Your task to perform on an android device: Go to network settings Image 0: 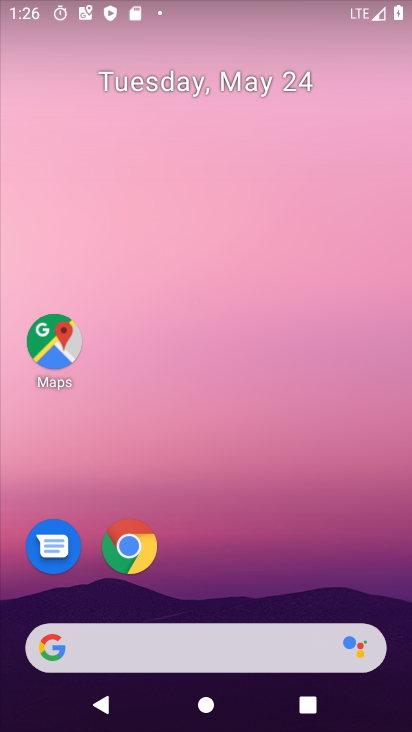
Step 0: drag from (147, 482) to (3, 467)
Your task to perform on an android device: Go to network settings Image 1: 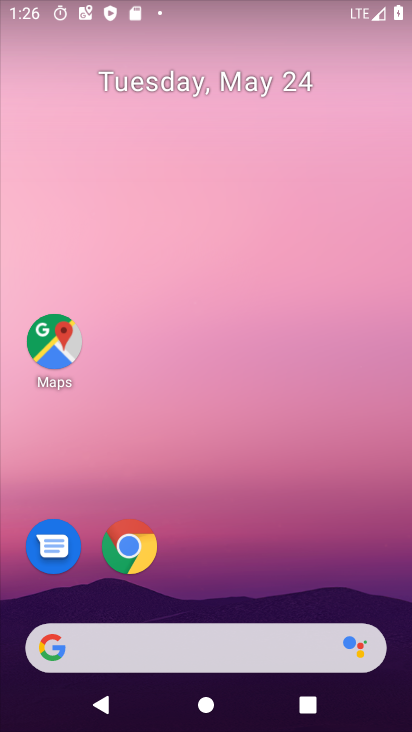
Step 1: drag from (180, 613) to (243, 105)
Your task to perform on an android device: Go to network settings Image 2: 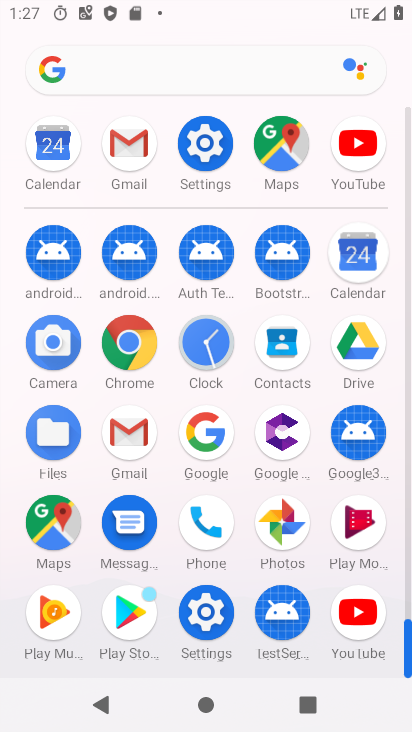
Step 2: click (201, 152)
Your task to perform on an android device: Go to network settings Image 3: 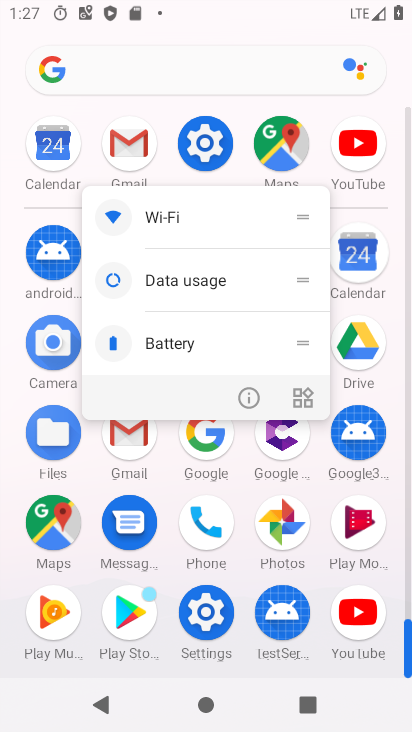
Step 3: click (240, 405)
Your task to perform on an android device: Go to network settings Image 4: 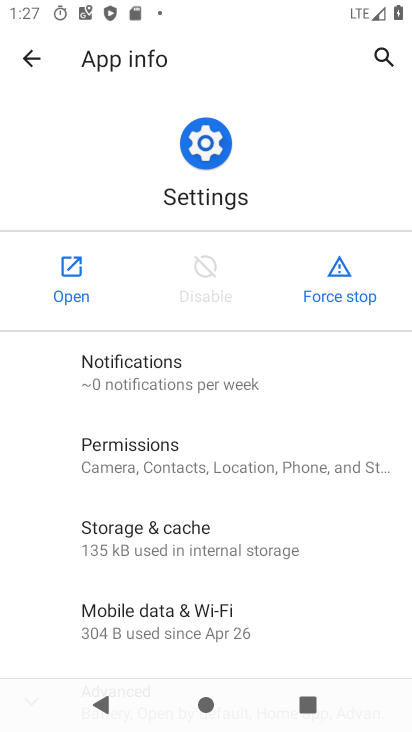
Step 4: click (77, 268)
Your task to perform on an android device: Go to network settings Image 5: 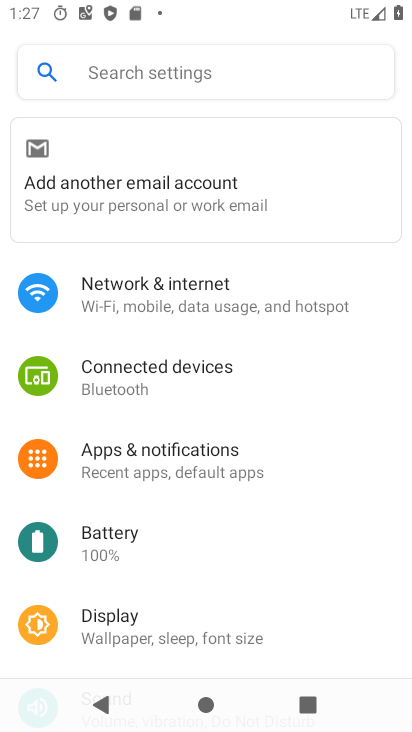
Step 5: drag from (170, 552) to (207, 165)
Your task to perform on an android device: Go to network settings Image 6: 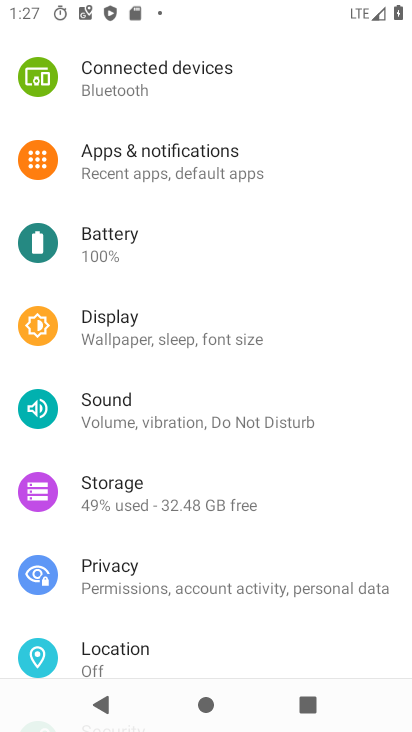
Step 6: drag from (236, 181) to (260, 589)
Your task to perform on an android device: Go to network settings Image 7: 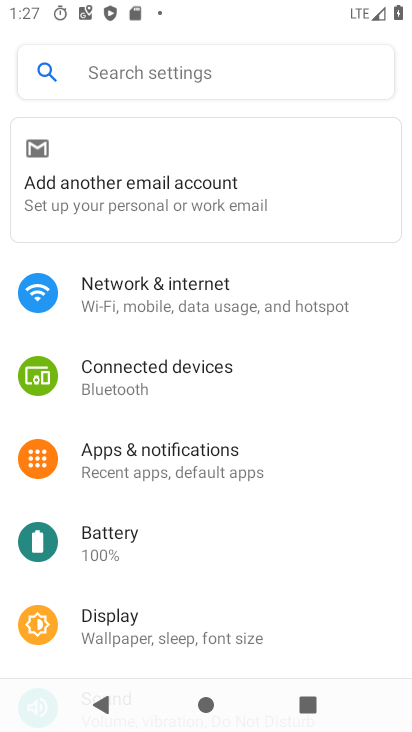
Step 7: click (145, 298)
Your task to perform on an android device: Go to network settings Image 8: 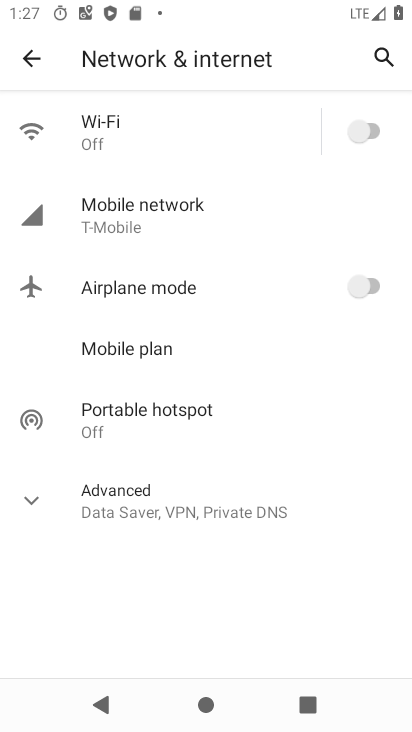
Step 8: drag from (154, 538) to (253, 232)
Your task to perform on an android device: Go to network settings Image 9: 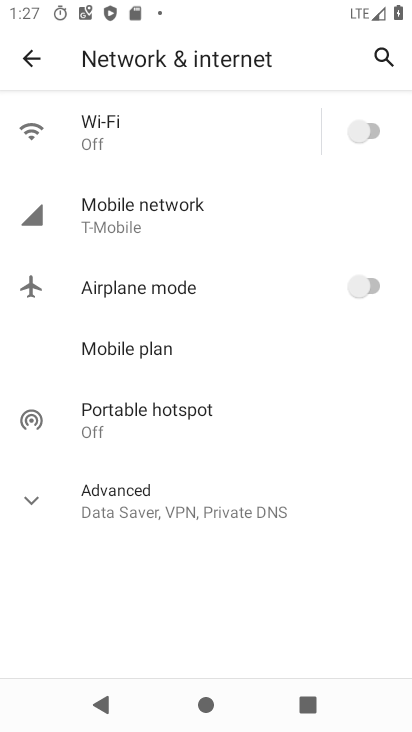
Step 9: click (144, 243)
Your task to perform on an android device: Go to network settings Image 10: 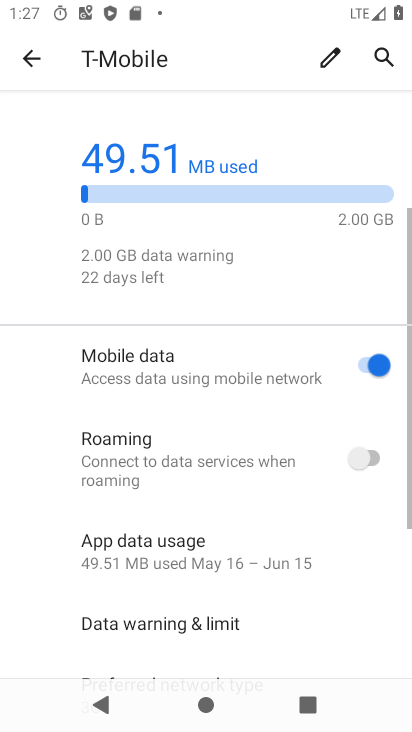
Step 10: task complete